Your task to perform on an android device: allow cookies in the chrome app Image 0: 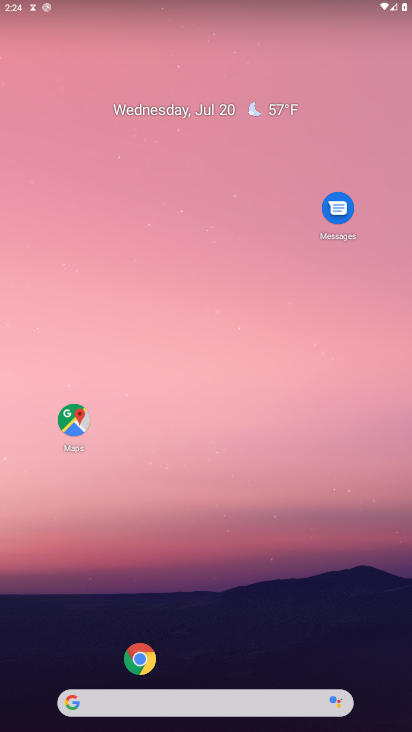
Step 0: click (133, 663)
Your task to perform on an android device: allow cookies in the chrome app Image 1: 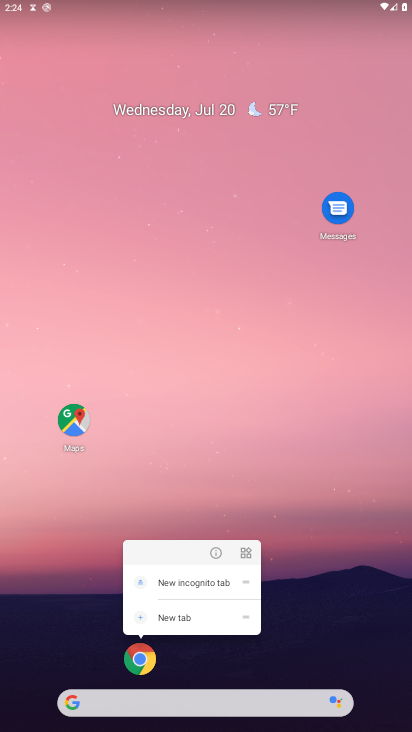
Step 1: click (133, 667)
Your task to perform on an android device: allow cookies in the chrome app Image 2: 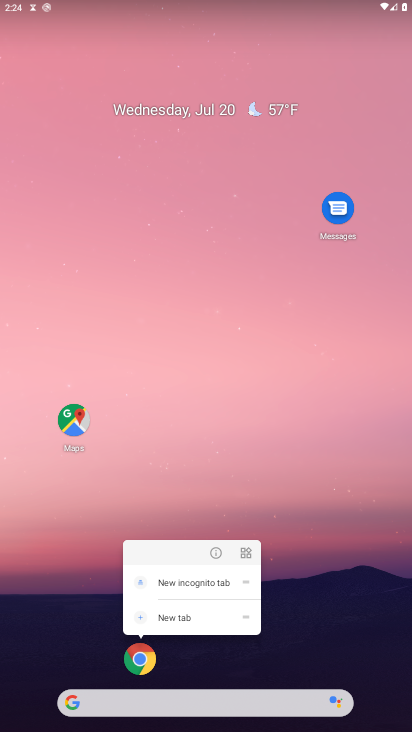
Step 2: task complete